Your task to perform on an android device: turn off javascript in the chrome app Image 0: 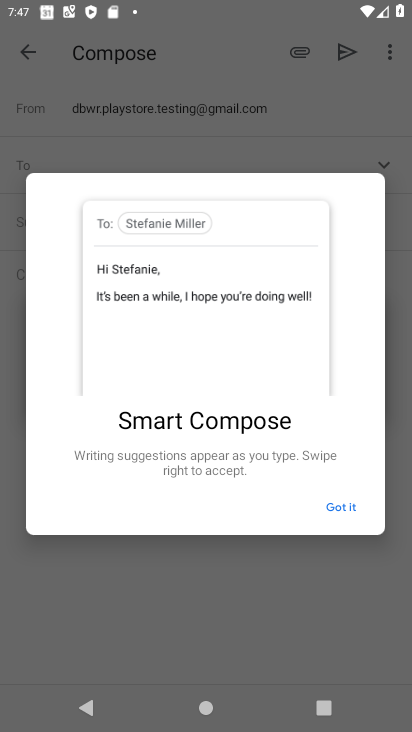
Step 0: press back button
Your task to perform on an android device: turn off javascript in the chrome app Image 1: 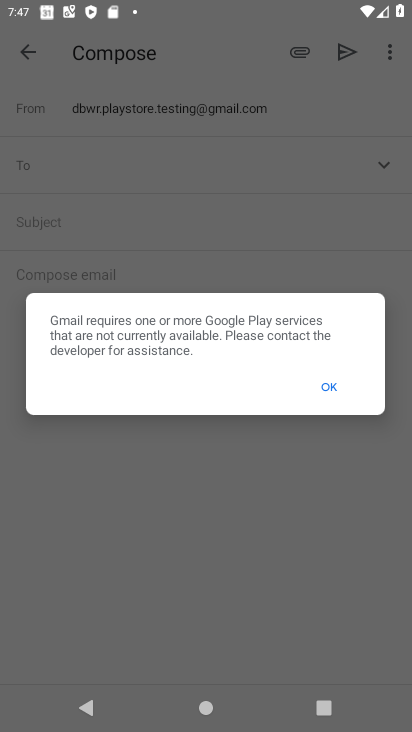
Step 1: press home button
Your task to perform on an android device: turn off javascript in the chrome app Image 2: 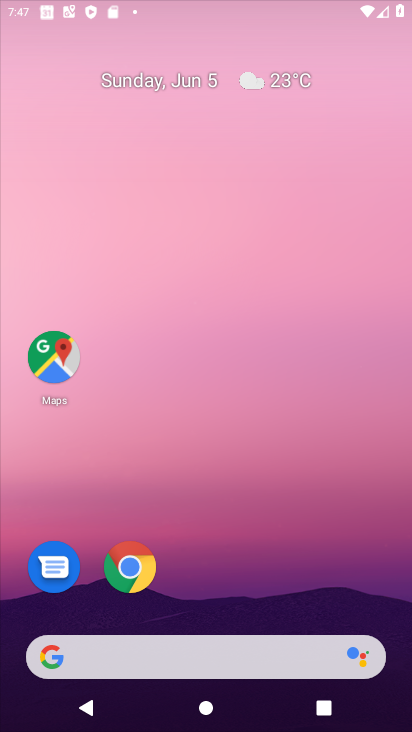
Step 2: drag from (388, 619) to (292, 56)
Your task to perform on an android device: turn off javascript in the chrome app Image 3: 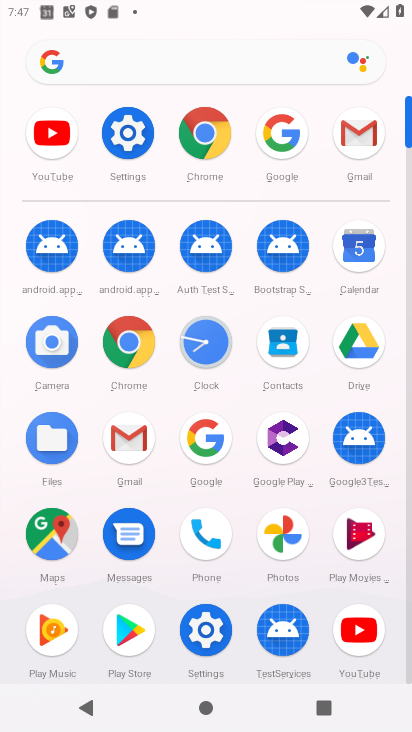
Step 3: click (194, 152)
Your task to perform on an android device: turn off javascript in the chrome app Image 4: 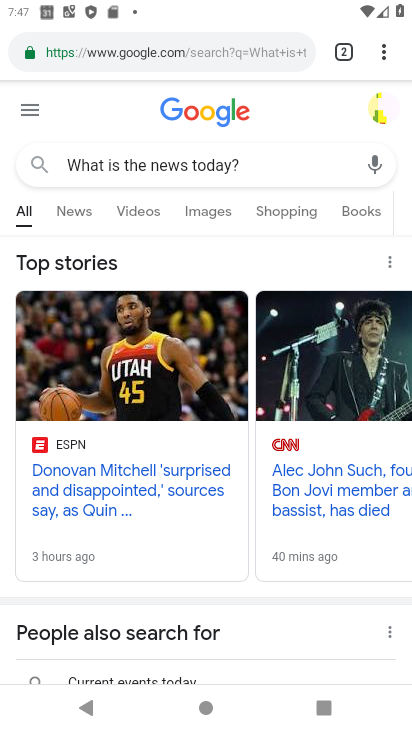
Step 4: press back button
Your task to perform on an android device: turn off javascript in the chrome app Image 5: 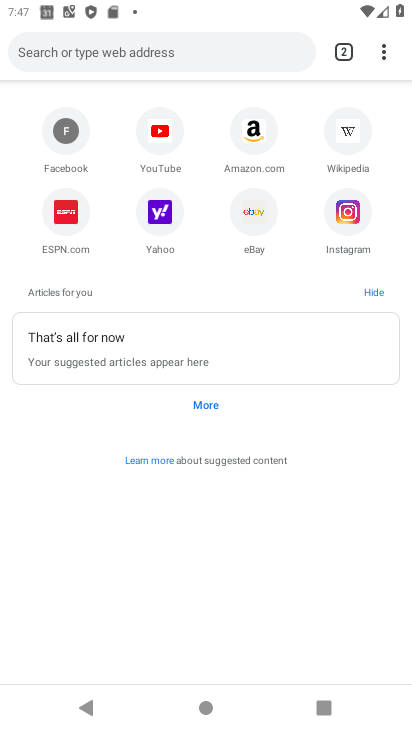
Step 5: click (382, 46)
Your task to perform on an android device: turn off javascript in the chrome app Image 6: 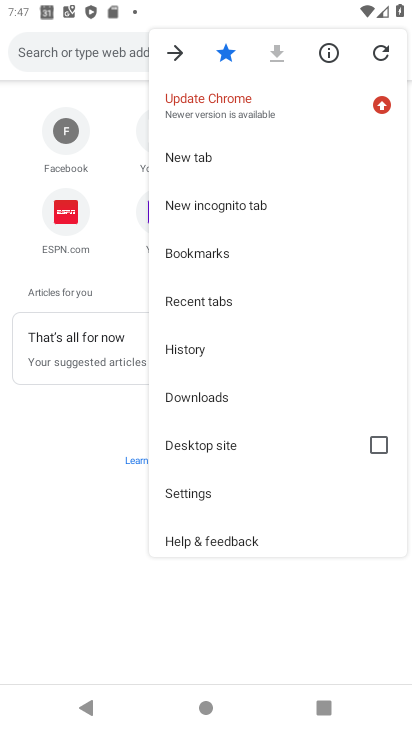
Step 6: click (205, 487)
Your task to perform on an android device: turn off javascript in the chrome app Image 7: 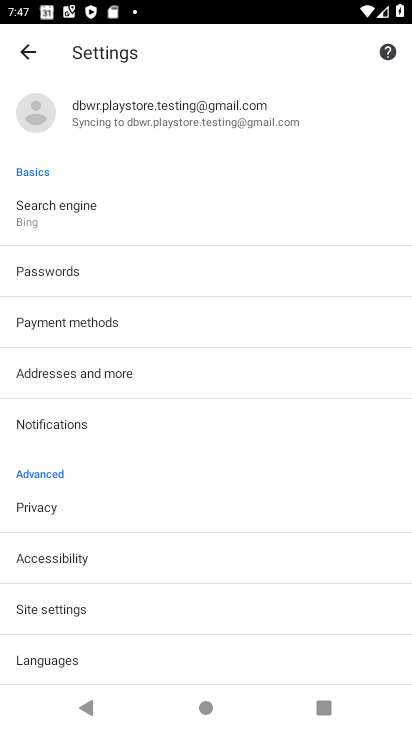
Step 7: click (95, 617)
Your task to perform on an android device: turn off javascript in the chrome app Image 8: 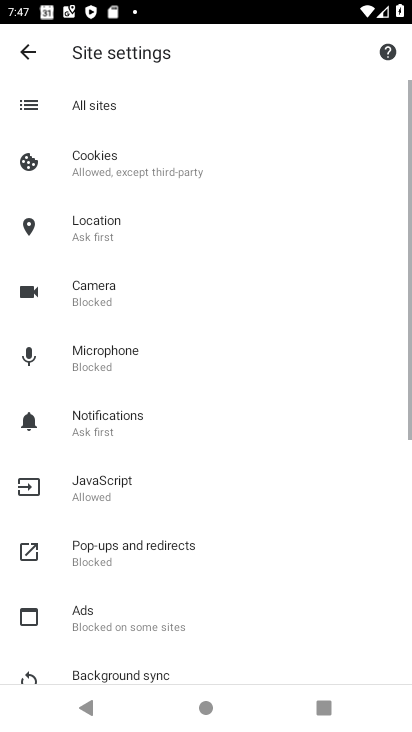
Step 8: click (121, 500)
Your task to perform on an android device: turn off javascript in the chrome app Image 9: 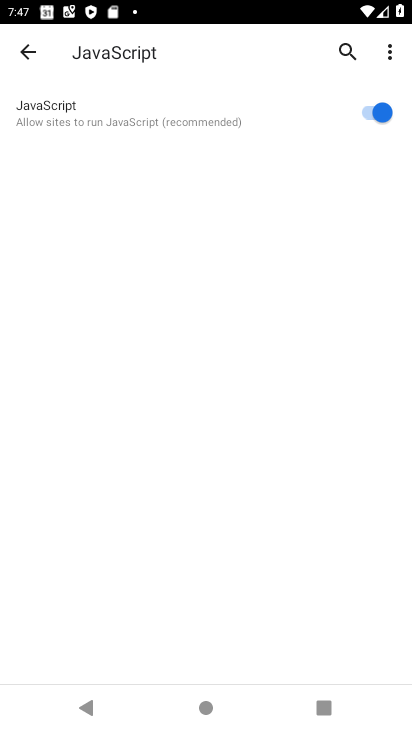
Step 9: click (360, 108)
Your task to perform on an android device: turn off javascript in the chrome app Image 10: 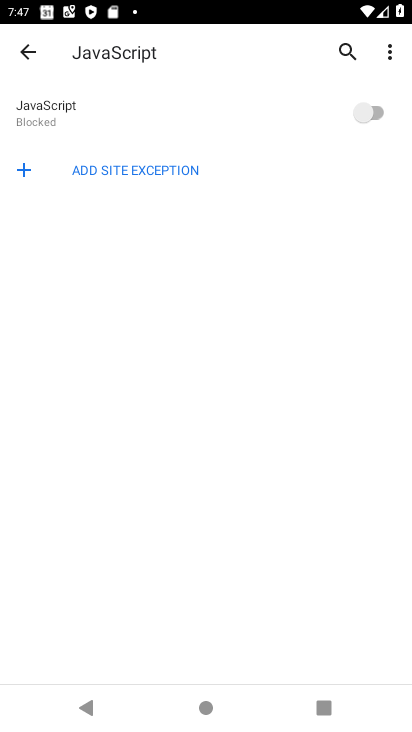
Step 10: task complete